Your task to perform on an android device: refresh tabs in the chrome app Image 0: 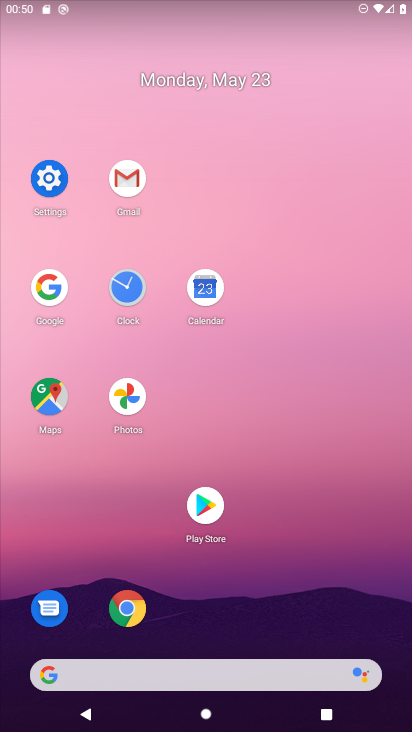
Step 0: click (135, 607)
Your task to perform on an android device: refresh tabs in the chrome app Image 1: 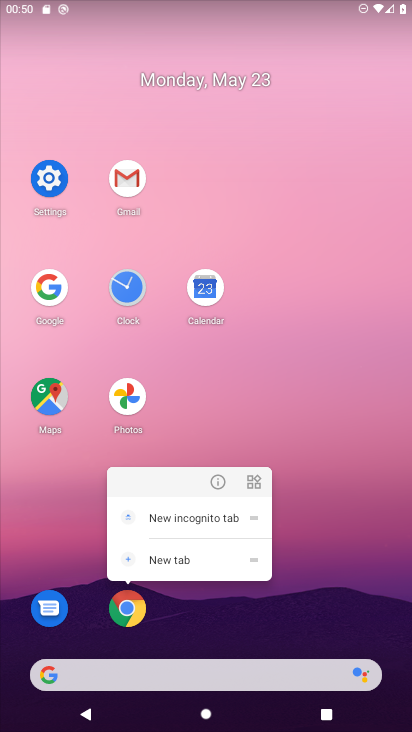
Step 1: click (135, 608)
Your task to perform on an android device: refresh tabs in the chrome app Image 2: 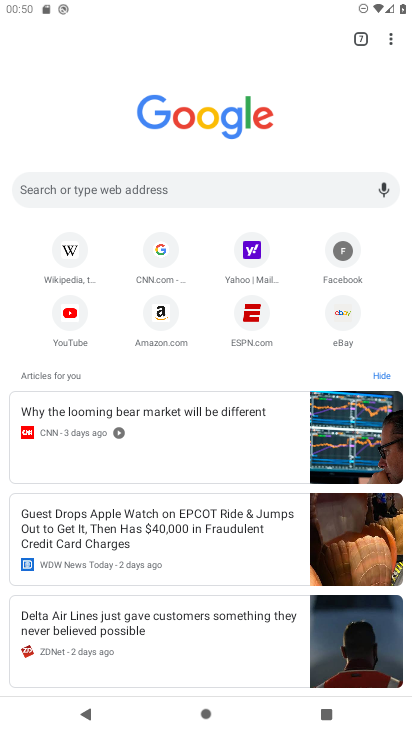
Step 2: click (364, 34)
Your task to perform on an android device: refresh tabs in the chrome app Image 3: 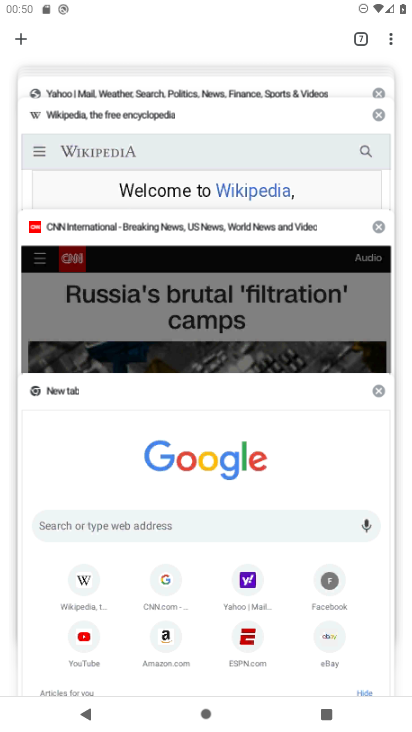
Step 3: click (365, 46)
Your task to perform on an android device: refresh tabs in the chrome app Image 4: 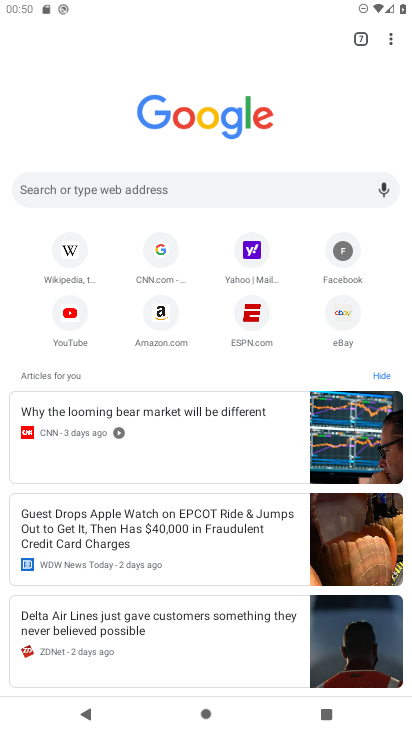
Step 4: click (394, 43)
Your task to perform on an android device: refresh tabs in the chrome app Image 5: 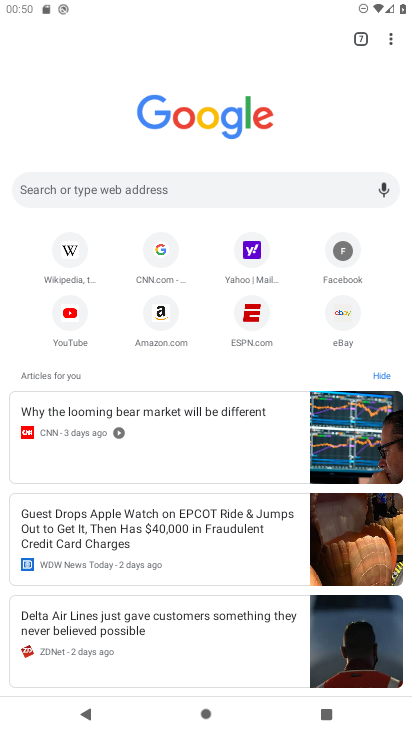
Step 5: click (392, 46)
Your task to perform on an android device: refresh tabs in the chrome app Image 6: 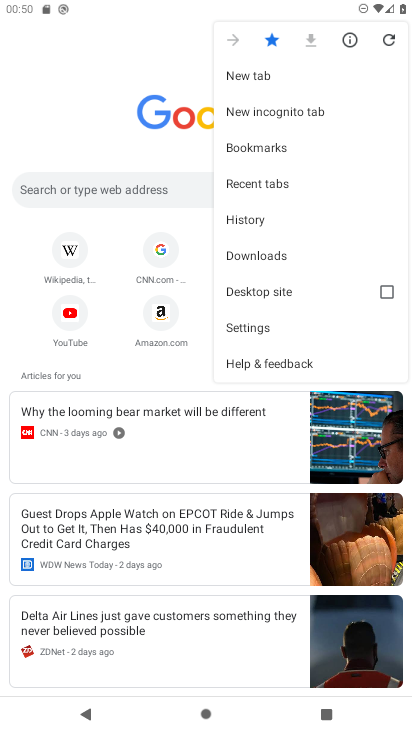
Step 6: click (392, 46)
Your task to perform on an android device: refresh tabs in the chrome app Image 7: 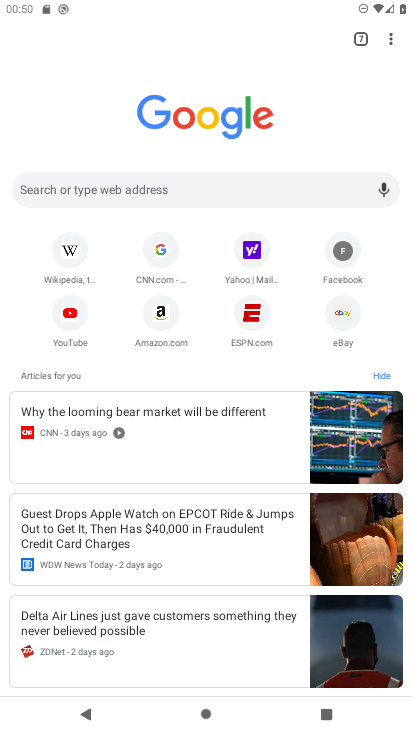
Step 7: task complete